Your task to perform on an android device: open app "Gboard" Image 0: 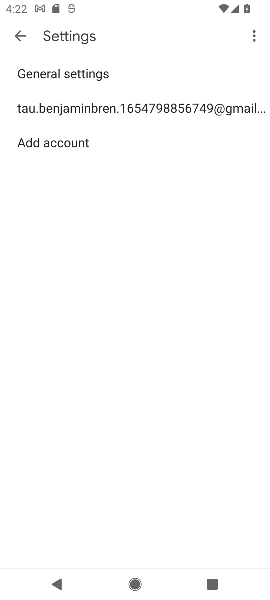
Step 0: press home button
Your task to perform on an android device: open app "Gboard" Image 1: 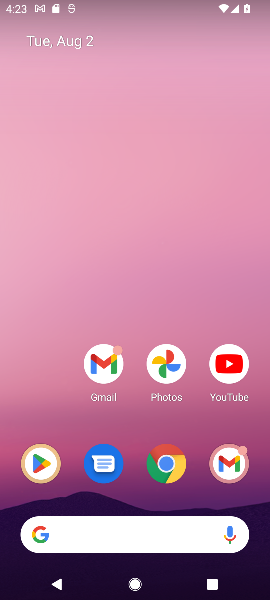
Step 1: click (39, 466)
Your task to perform on an android device: open app "Gboard" Image 2: 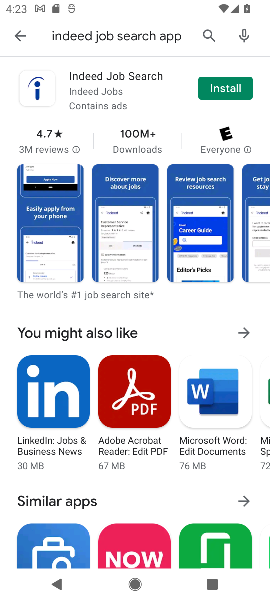
Step 2: click (207, 31)
Your task to perform on an android device: open app "Gboard" Image 3: 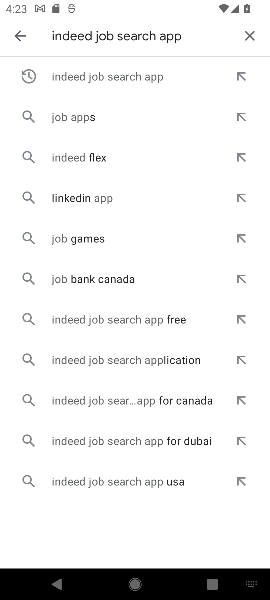
Step 3: click (247, 29)
Your task to perform on an android device: open app "Gboard" Image 4: 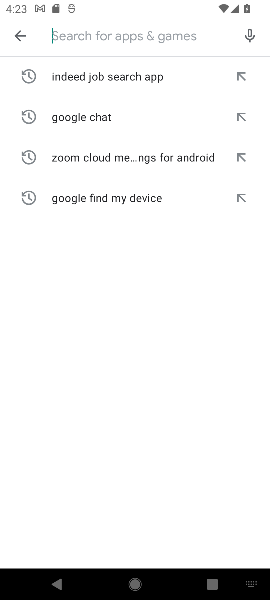
Step 4: type "Gboard"
Your task to perform on an android device: open app "Gboard" Image 5: 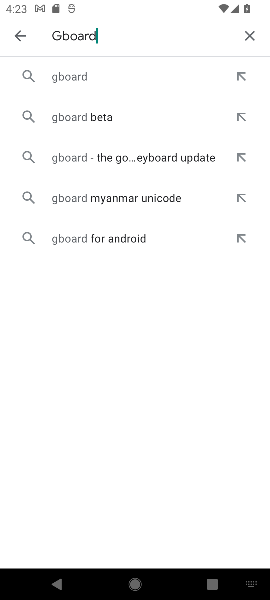
Step 5: click (71, 70)
Your task to perform on an android device: open app "Gboard" Image 6: 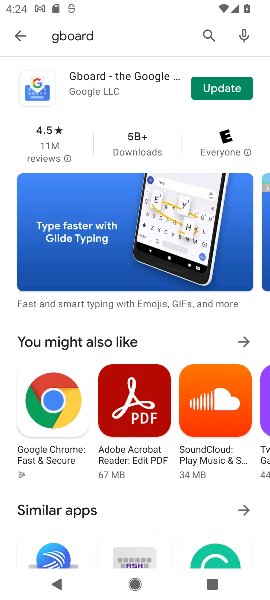
Step 6: task complete